Your task to perform on an android device: turn smart compose on in the gmail app Image 0: 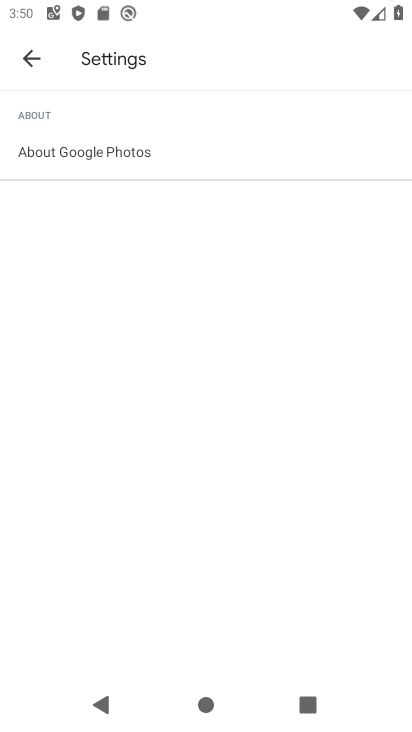
Step 0: press home button
Your task to perform on an android device: turn smart compose on in the gmail app Image 1: 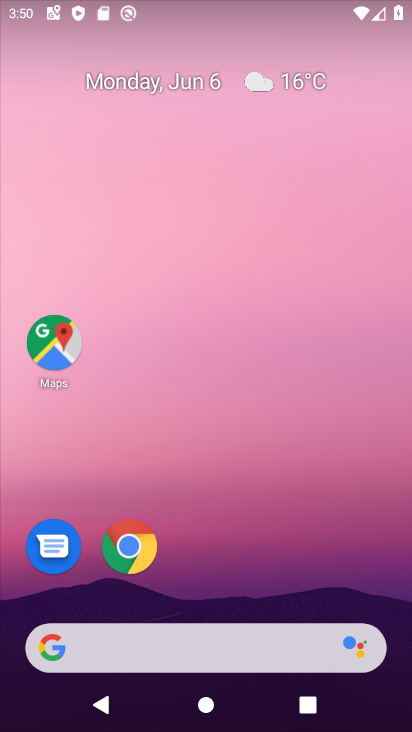
Step 1: drag from (320, 592) to (394, 31)
Your task to perform on an android device: turn smart compose on in the gmail app Image 2: 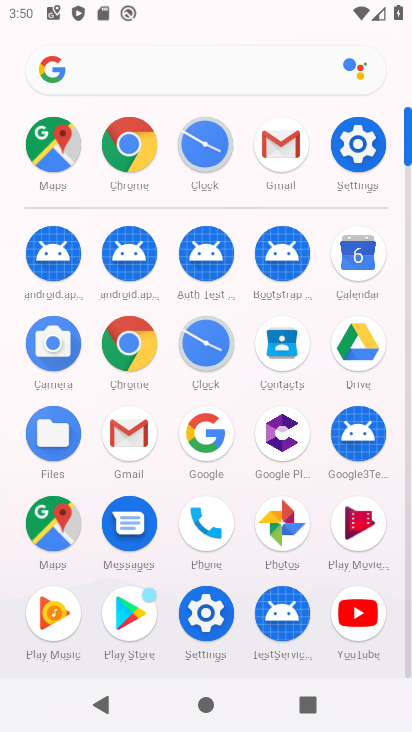
Step 2: click (277, 150)
Your task to perform on an android device: turn smart compose on in the gmail app Image 3: 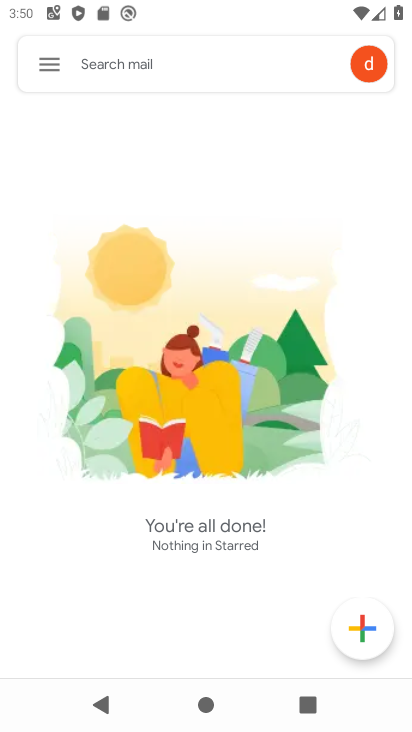
Step 3: click (44, 68)
Your task to perform on an android device: turn smart compose on in the gmail app Image 4: 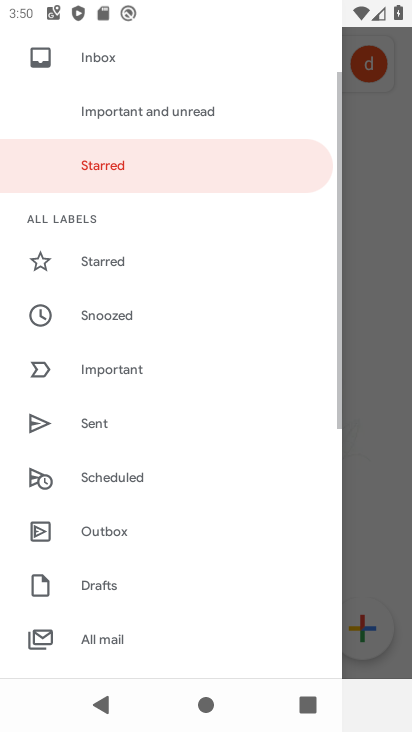
Step 4: drag from (88, 611) to (221, 59)
Your task to perform on an android device: turn smart compose on in the gmail app Image 5: 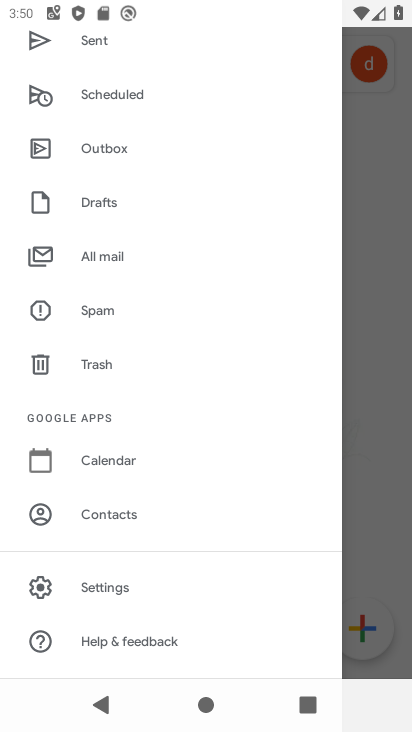
Step 5: click (101, 591)
Your task to perform on an android device: turn smart compose on in the gmail app Image 6: 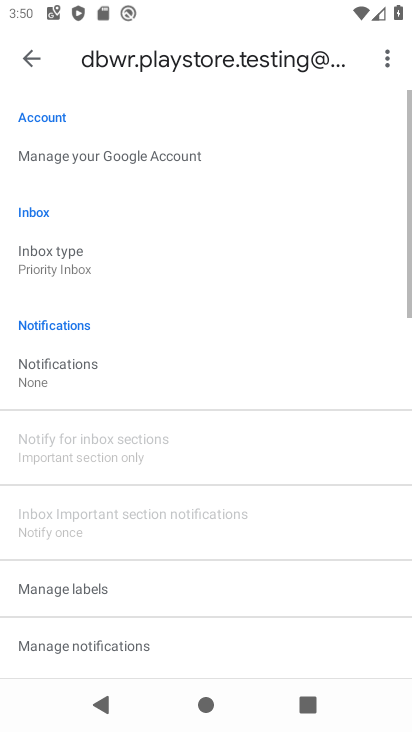
Step 6: task complete